Your task to perform on an android device: change notifications settings Image 0: 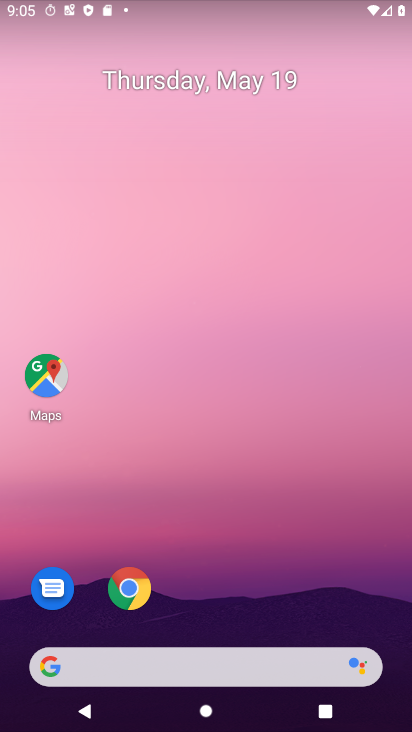
Step 0: press home button
Your task to perform on an android device: change notifications settings Image 1: 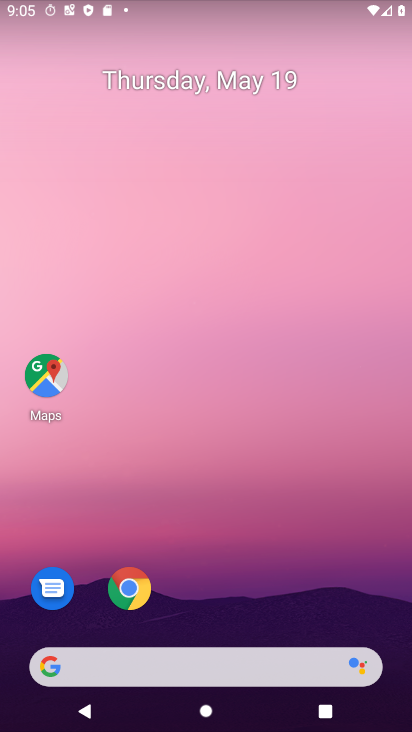
Step 1: click (285, 269)
Your task to perform on an android device: change notifications settings Image 2: 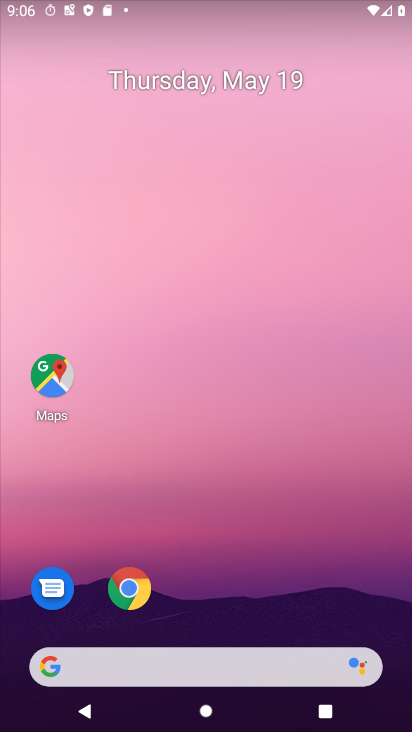
Step 2: drag from (191, 654) to (305, 180)
Your task to perform on an android device: change notifications settings Image 3: 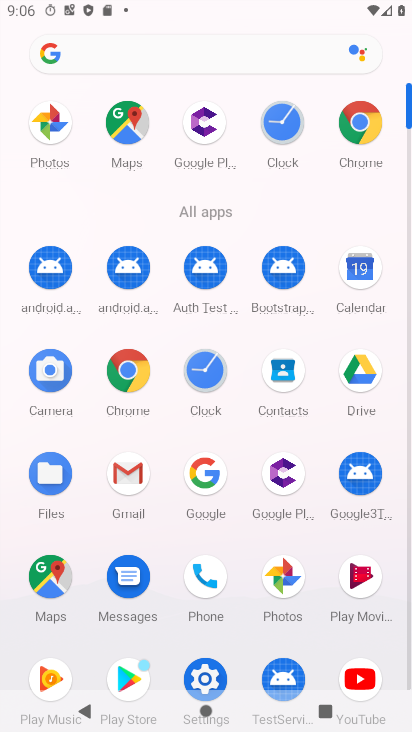
Step 3: drag from (185, 569) to (326, 244)
Your task to perform on an android device: change notifications settings Image 4: 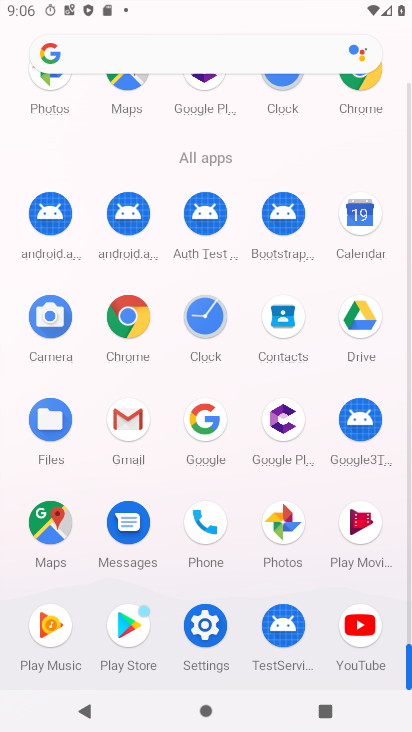
Step 4: click (205, 619)
Your task to perform on an android device: change notifications settings Image 5: 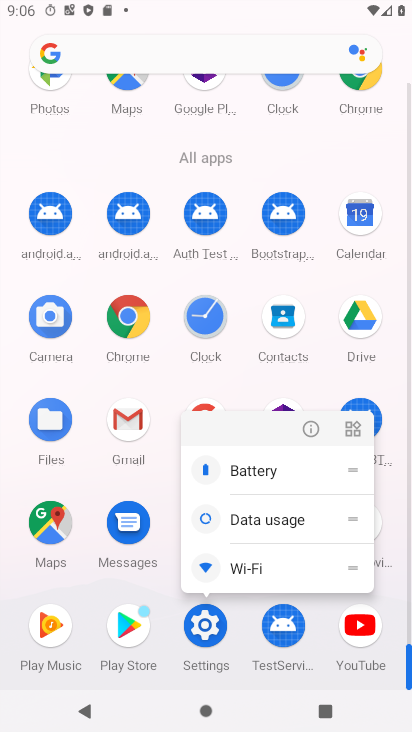
Step 5: click (202, 631)
Your task to perform on an android device: change notifications settings Image 6: 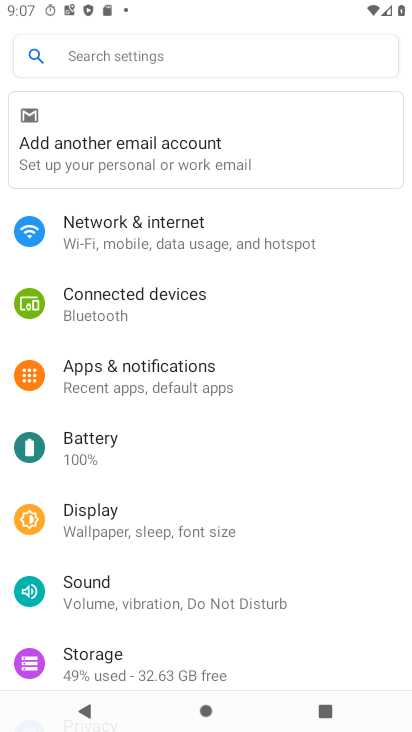
Step 6: click (185, 375)
Your task to perform on an android device: change notifications settings Image 7: 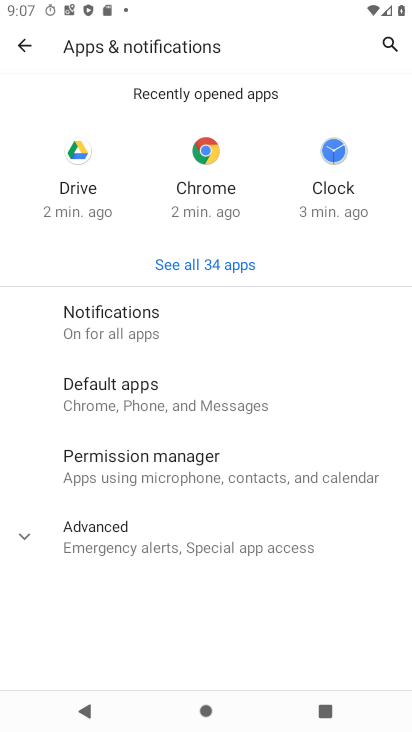
Step 7: click (117, 315)
Your task to perform on an android device: change notifications settings Image 8: 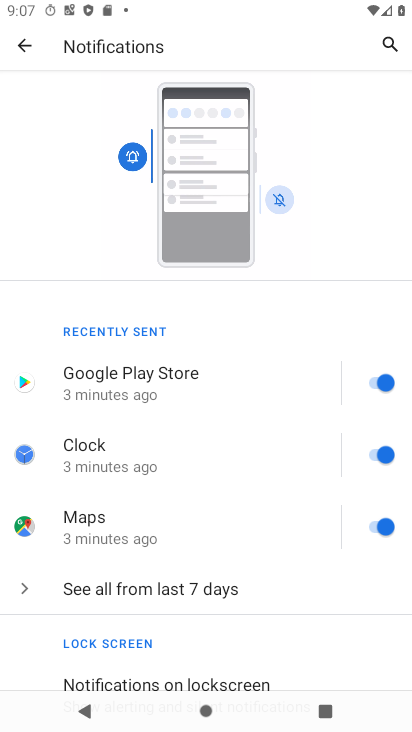
Step 8: click (379, 381)
Your task to perform on an android device: change notifications settings Image 9: 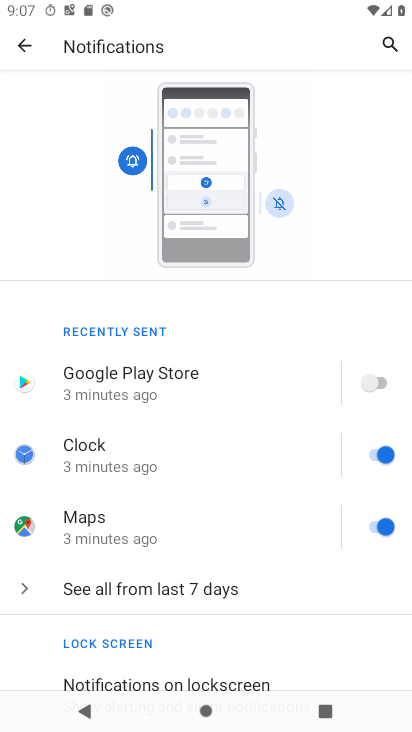
Step 9: task complete